Your task to perform on an android device: Open accessibility settings Image 0: 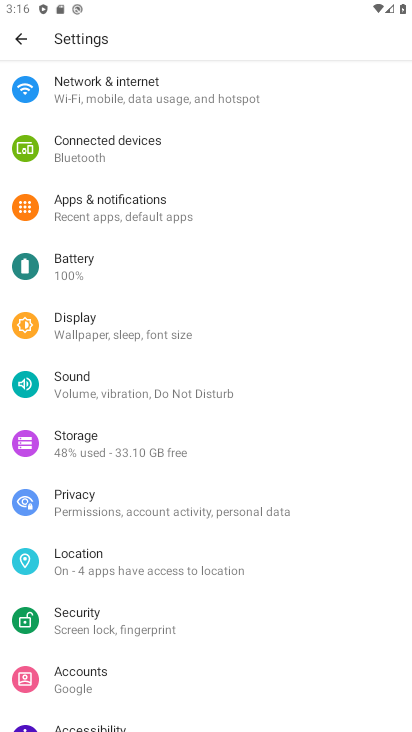
Step 0: drag from (146, 662) to (162, 201)
Your task to perform on an android device: Open accessibility settings Image 1: 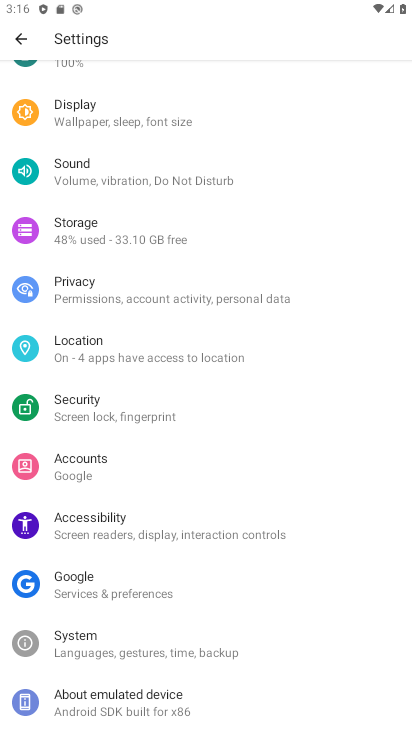
Step 1: click (82, 523)
Your task to perform on an android device: Open accessibility settings Image 2: 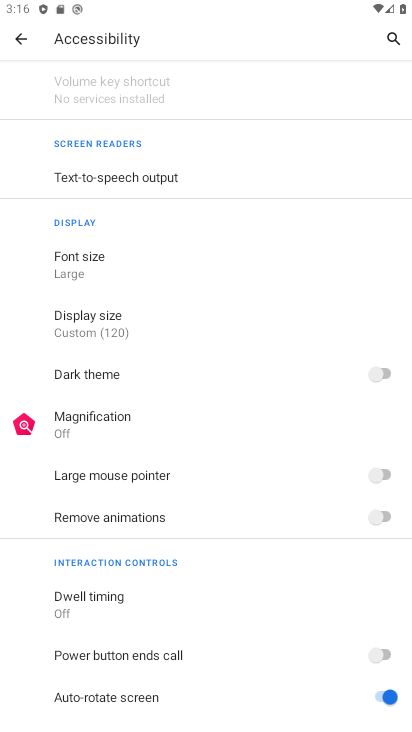
Step 2: task complete